Your task to perform on an android device: Go to notification settings Image 0: 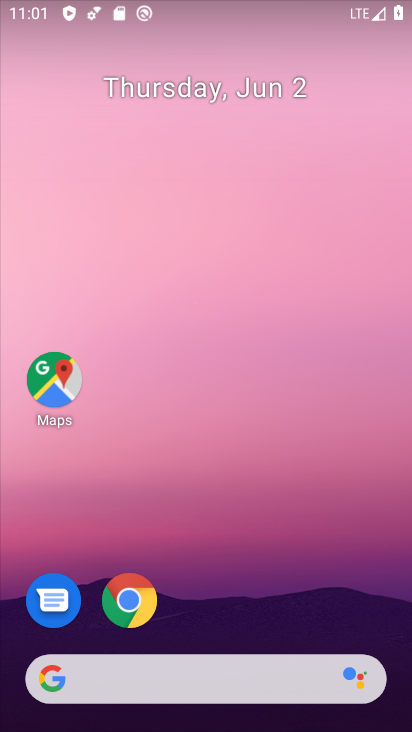
Step 0: drag from (250, 608) to (241, 236)
Your task to perform on an android device: Go to notification settings Image 1: 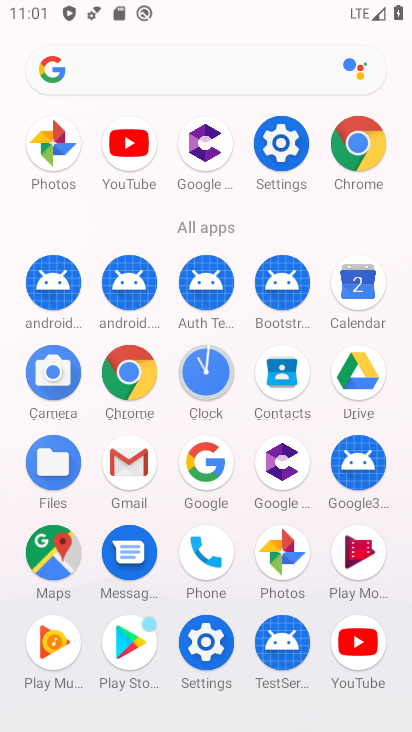
Step 1: click (291, 157)
Your task to perform on an android device: Go to notification settings Image 2: 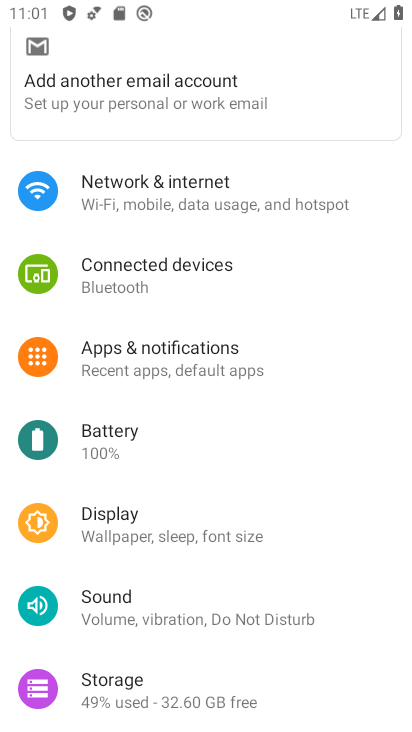
Step 2: click (165, 365)
Your task to perform on an android device: Go to notification settings Image 3: 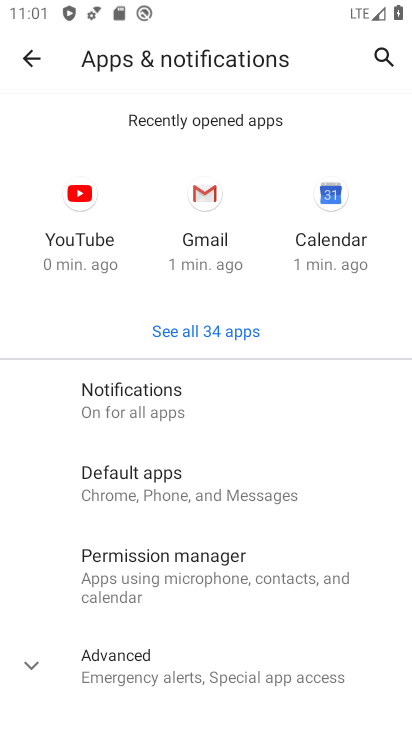
Step 3: click (180, 402)
Your task to perform on an android device: Go to notification settings Image 4: 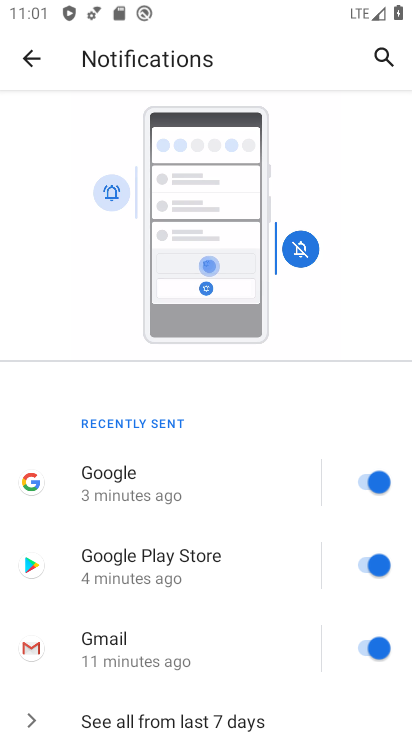
Step 4: task complete